Your task to perform on an android device: Search for Mexican restaurants on Maps Image 0: 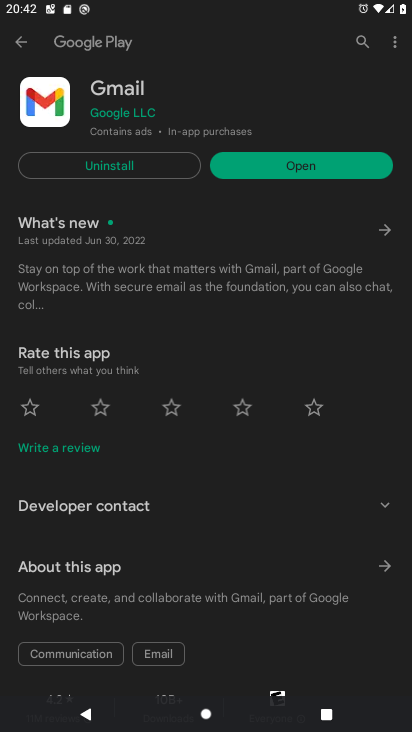
Step 0: press home button
Your task to perform on an android device: Search for Mexican restaurants on Maps Image 1: 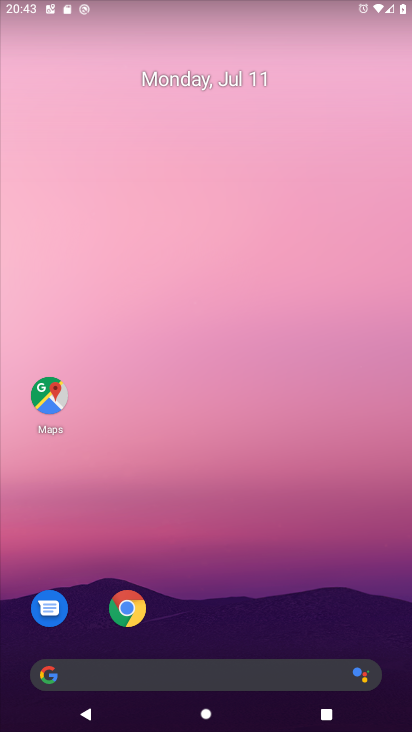
Step 1: drag from (264, 607) to (296, 75)
Your task to perform on an android device: Search for Mexican restaurants on Maps Image 2: 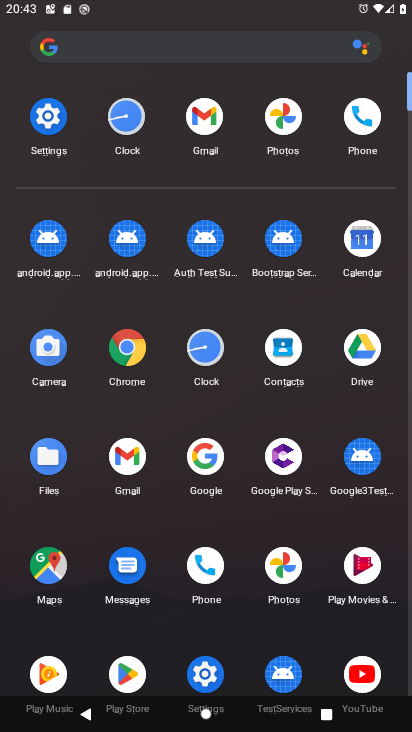
Step 2: click (36, 577)
Your task to perform on an android device: Search for Mexican restaurants on Maps Image 3: 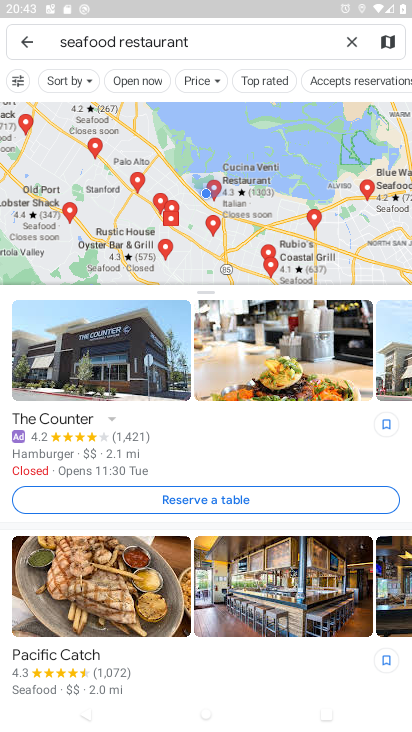
Step 3: click (357, 36)
Your task to perform on an android device: Search for Mexican restaurants on Maps Image 4: 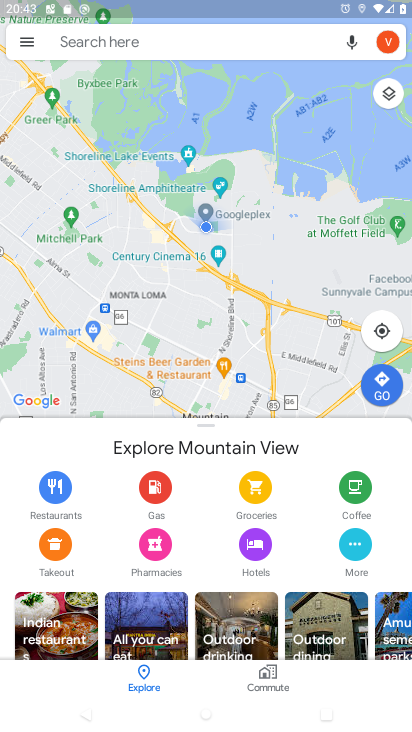
Step 4: click (136, 37)
Your task to perform on an android device: Search for Mexican restaurants on Maps Image 5: 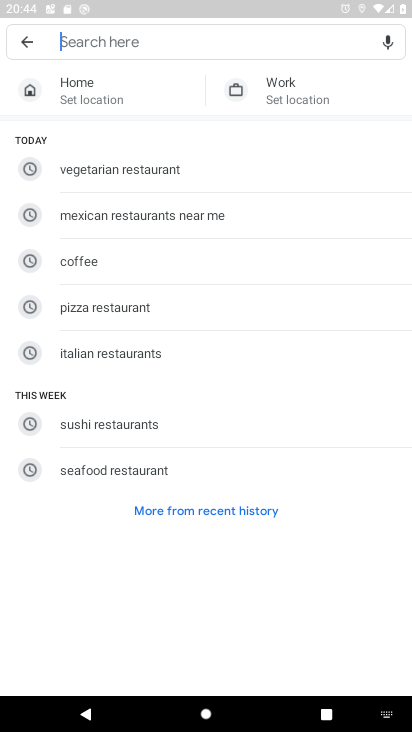
Step 5: click (207, 210)
Your task to perform on an android device: Search for Mexican restaurants on Maps Image 6: 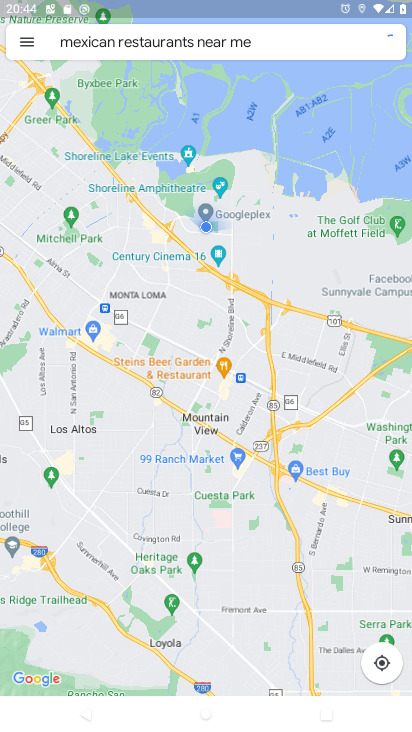
Step 6: task complete